Your task to perform on an android device: Open Yahoo.com Image 0: 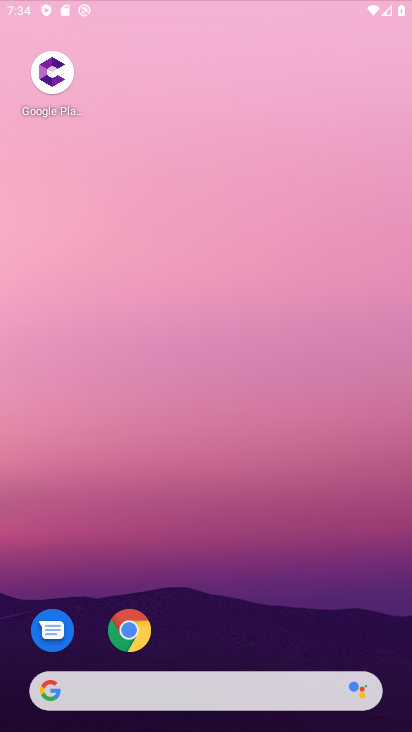
Step 0: click (246, 233)
Your task to perform on an android device: Open Yahoo.com Image 1: 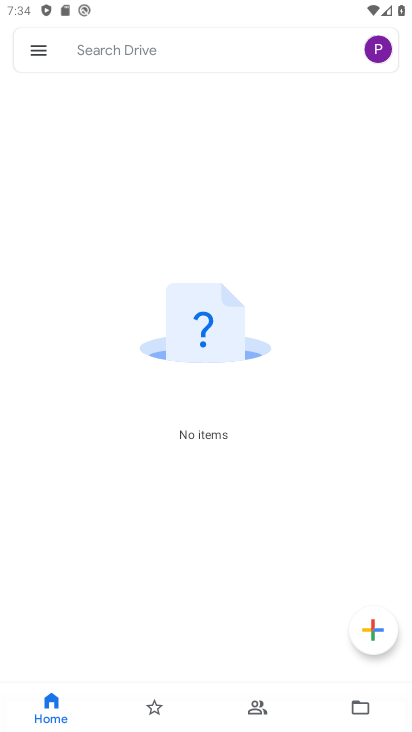
Step 1: press home button
Your task to perform on an android device: Open Yahoo.com Image 2: 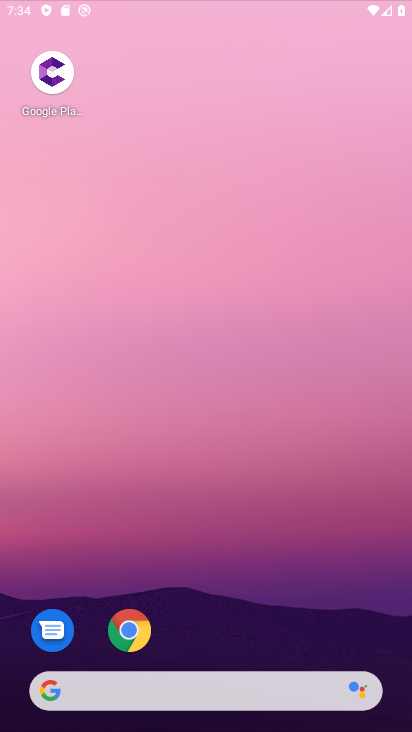
Step 2: drag from (242, 323) to (255, 59)
Your task to perform on an android device: Open Yahoo.com Image 3: 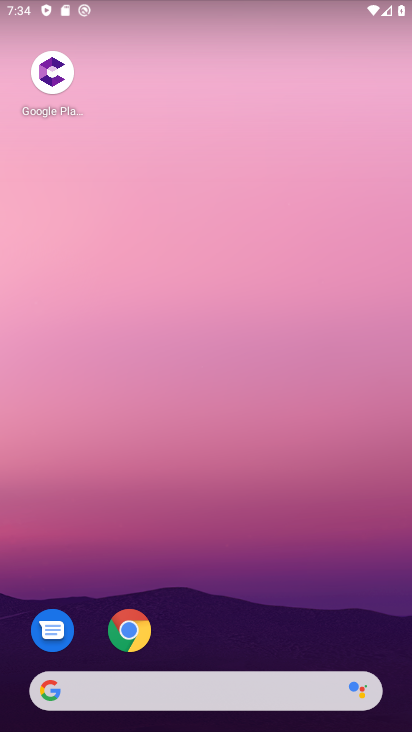
Step 3: drag from (202, 630) to (304, 5)
Your task to perform on an android device: Open Yahoo.com Image 4: 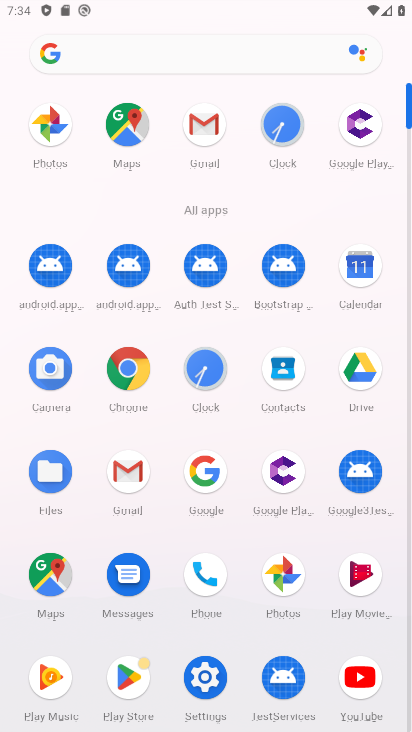
Step 4: click (133, 363)
Your task to perform on an android device: Open Yahoo.com Image 5: 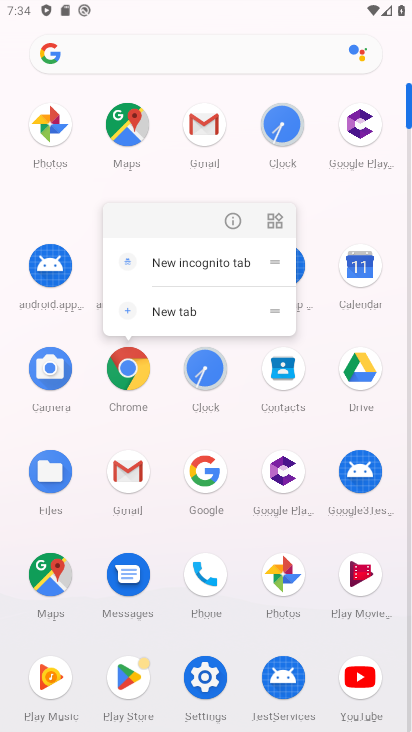
Step 5: click (230, 217)
Your task to perform on an android device: Open Yahoo.com Image 6: 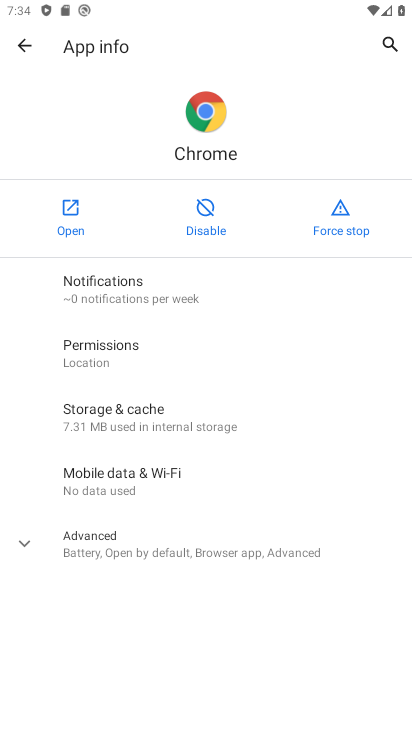
Step 6: click (75, 210)
Your task to perform on an android device: Open Yahoo.com Image 7: 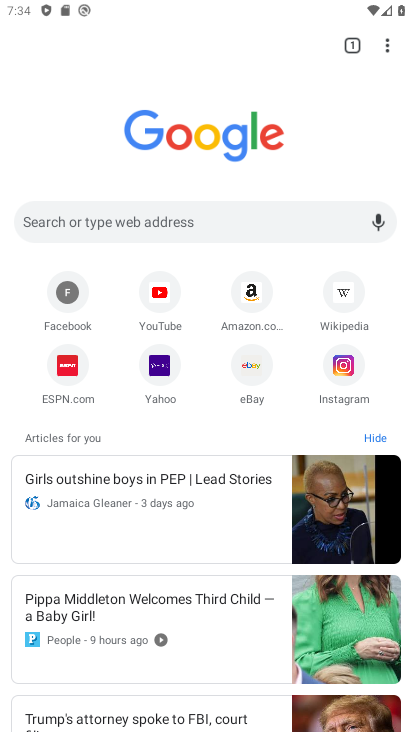
Step 7: click (153, 378)
Your task to perform on an android device: Open Yahoo.com Image 8: 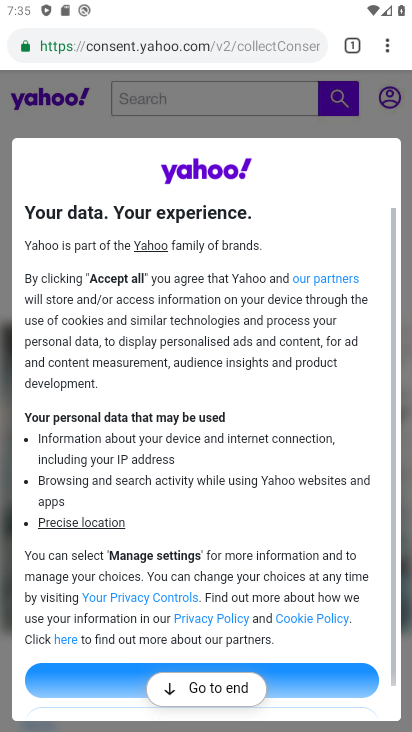
Step 8: task complete